Your task to perform on an android device: set the stopwatch Image 0: 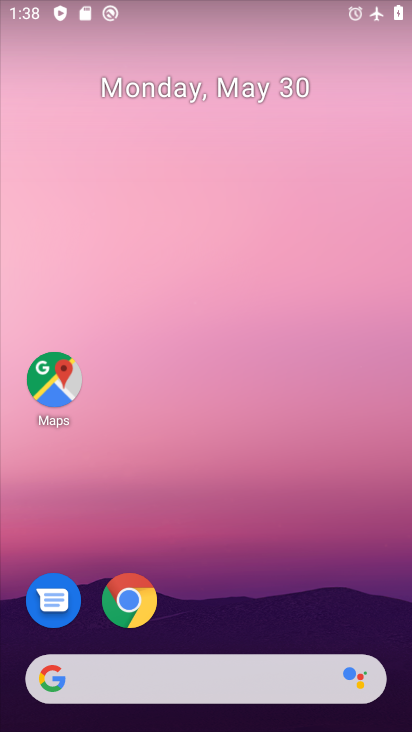
Step 0: drag from (226, 650) to (211, 26)
Your task to perform on an android device: set the stopwatch Image 1: 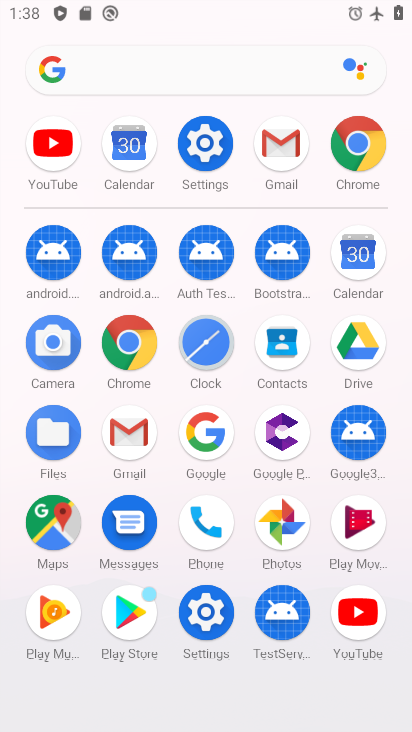
Step 1: click (207, 332)
Your task to perform on an android device: set the stopwatch Image 2: 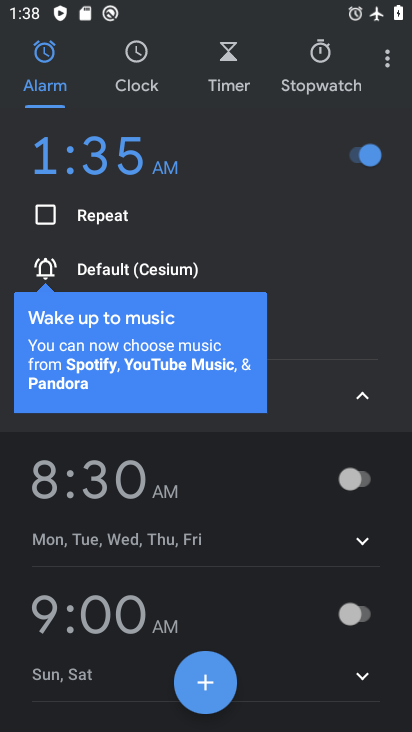
Step 2: click (313, 56)
Your task to perform on an android device: set the stopwatch Image 3: 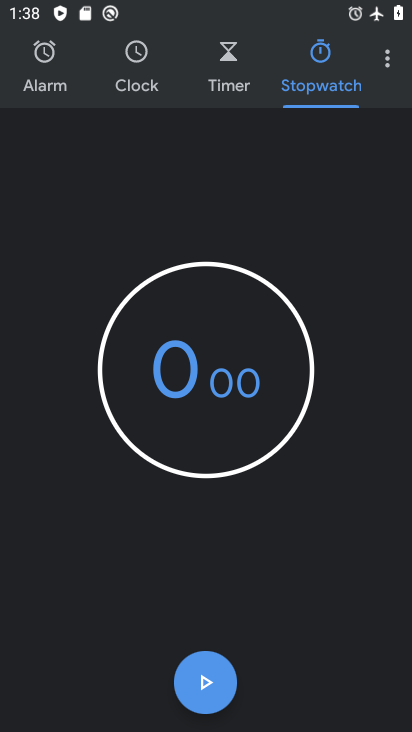
Step 3: task complete